Your task to perform on an android device: Set the phone to "Do not disturb". Image 0: 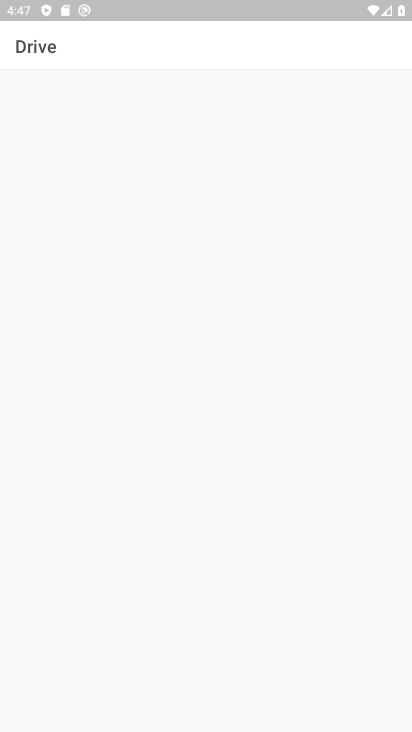
Step 0: press home button
Your task to perform on an android device: Set the phone to "Do not disturb". Image 1: 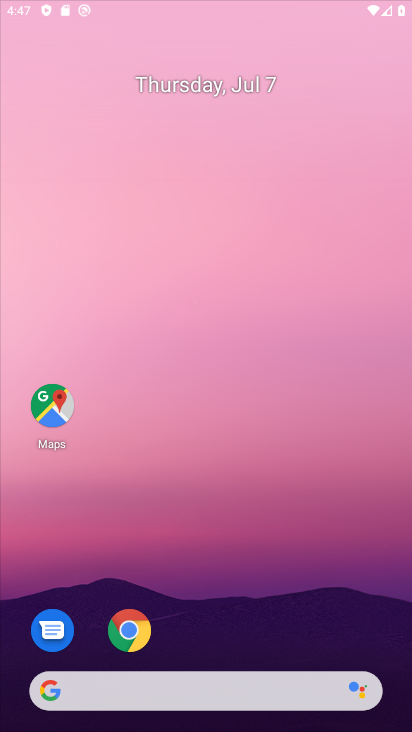
Step 1: drag from (161, 658) to (271, 159)
Your task to perform on an android device: Set the phone to "Do not disturb". Image 2: 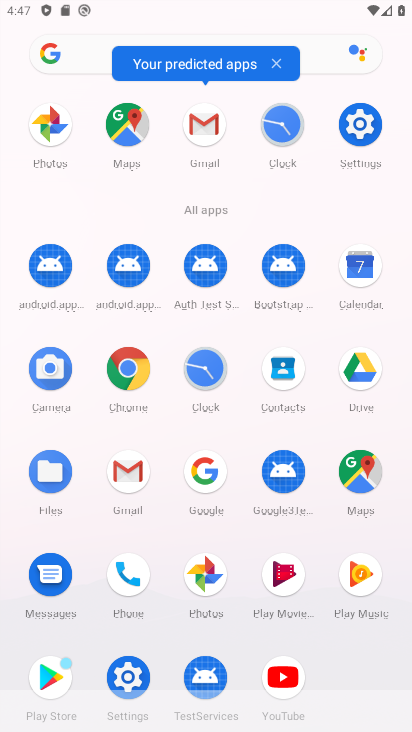
Step 2: click (129, 664)
Your task to perform on an android device: Set the phone to "Do not disturb". Image 3: 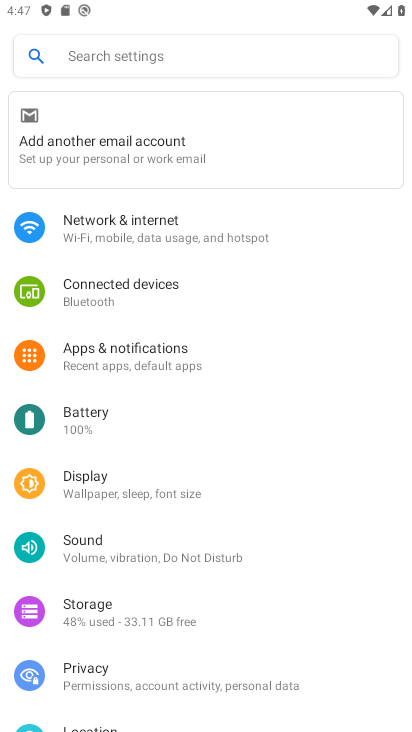
Step 3: click (160, 358)
Your task to perform on an android device: Set the phone to "Do not disturb". Image 4: 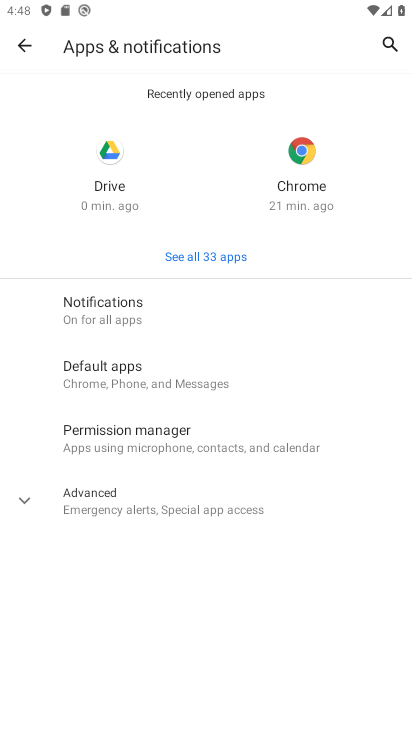
Step 4: click (189, 318)
Your task to perform on an android device: Set the phone to "Do not disturb". Image 5: 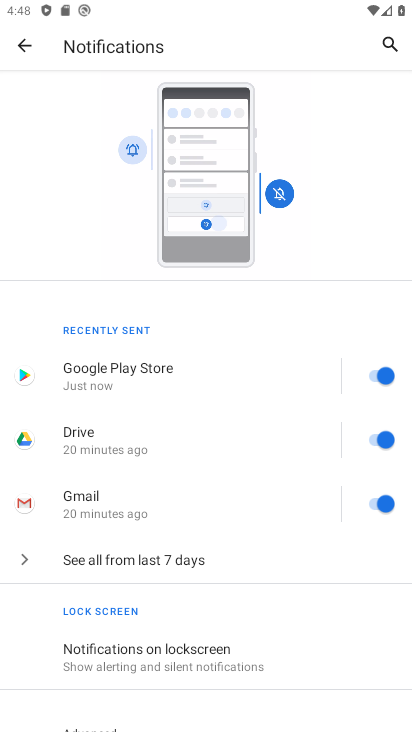
Step 5: drag from (175, 692) to (243, 307)
Your task to perform on an android device: Set the phone to "Do not disturb". Image 6: 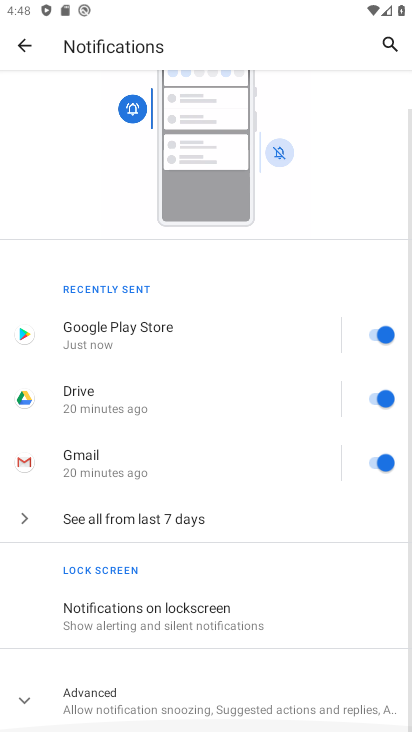
Step 6: click (167, 688)
Your task to perform on an android device: Set the phone to "Do not disturb". Image 7: 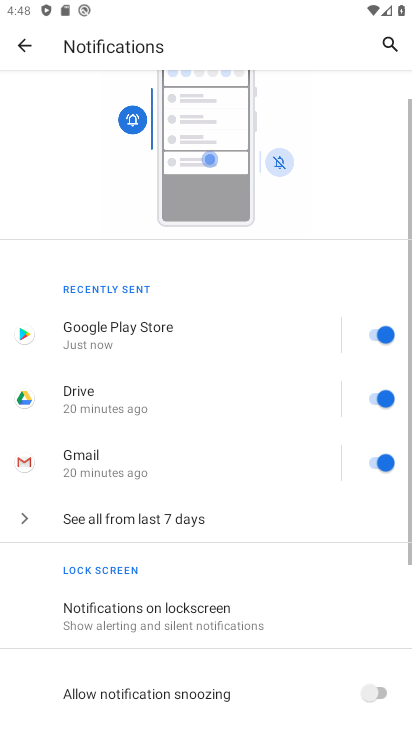
Step 7: drag from (178, 686) to (271, 152)
Your task to perform on an android device: Set the phone to "Do not disturb". Image 8: 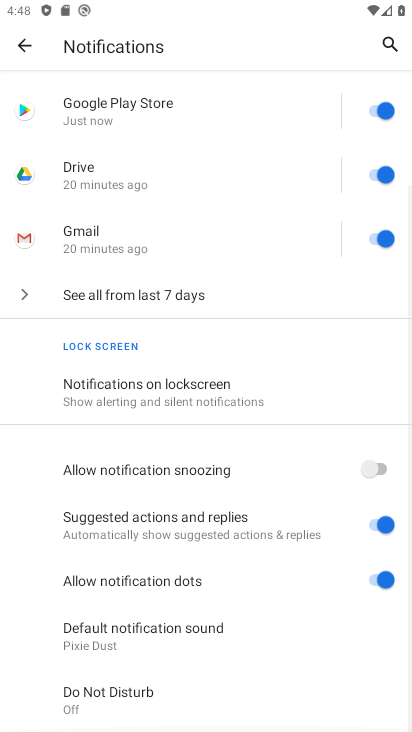
Step 8: click (210, 700)
Your task to perform on an android device: Set the phone to "Do not disturb". Image 9: 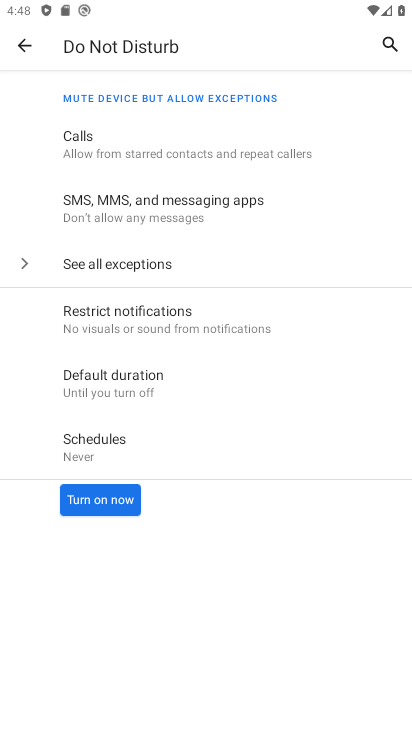
Step 9: click (75, 499)
Your task to perform on an android device: Set the phone to "Do not disturb". Image 10: 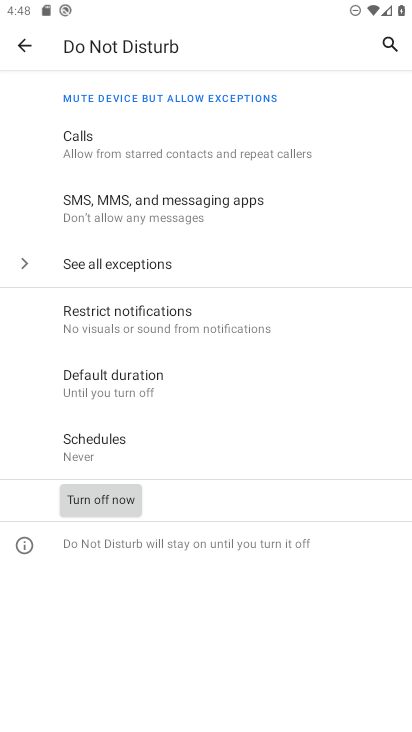
Step 10: task complete